Your task to perform on an android device: open chrome privacy settings Image 0: 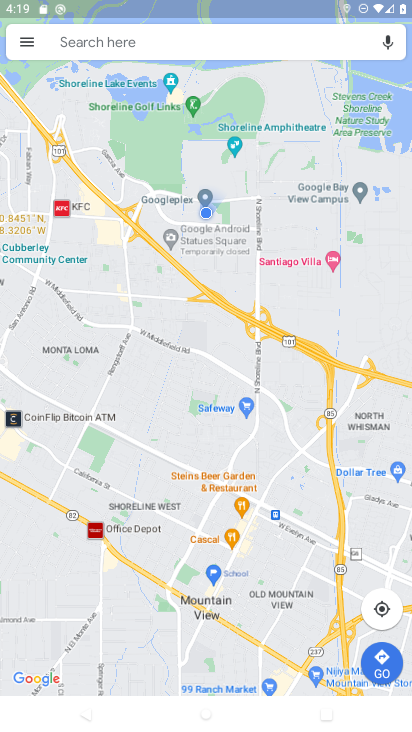
Step 0: click (17, 33)
Your task to perform on an android device: open chrome privacy settings Image 1: 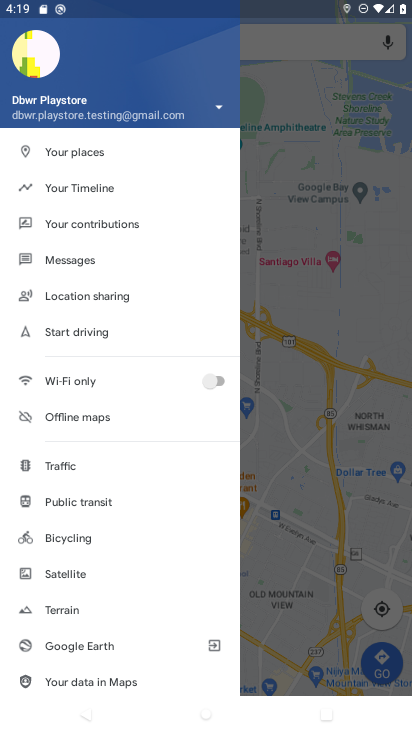
Step 1: press home button
Your task to perform on an android device: open chrome privacy settings Image 2: 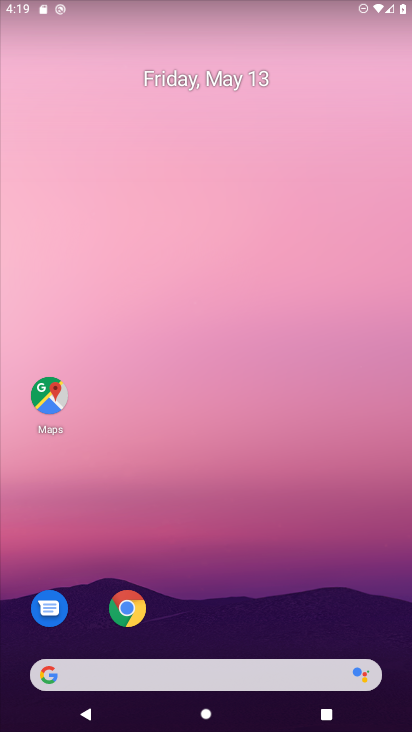
Step 2: drag from (294, 637) to (243, 3)
Your task to perform on an android device: open chrome privacy settings Image 3: 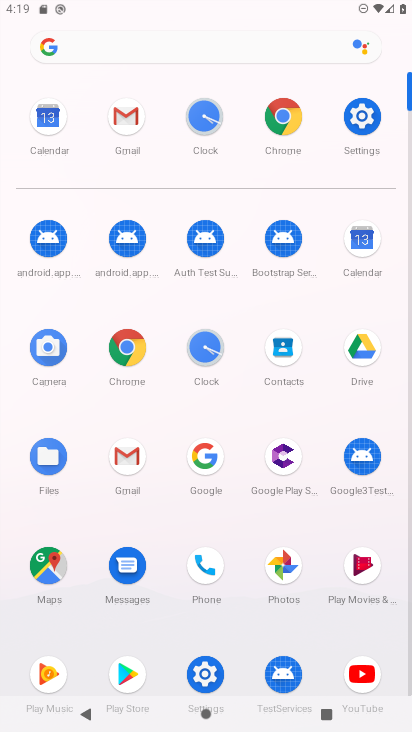
Step 3: click (361, 118)
Your task to perform on an android device: open chrome privacy settings Image 4: 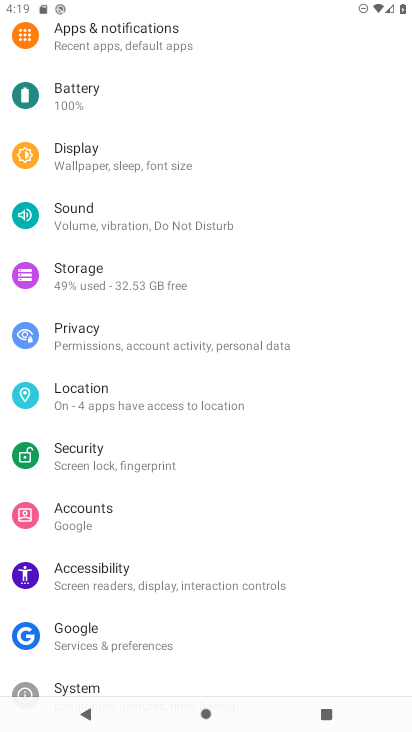
Step 4: press home button
Your task to perform on an android device: open chrome privacy settings Image 5: 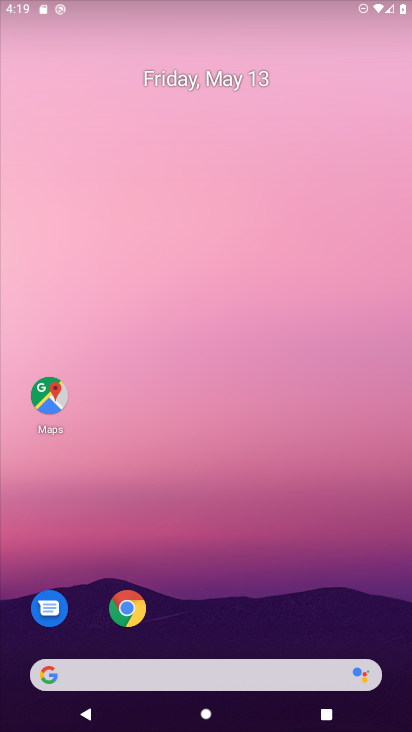
Step 5: drag from (269, 671) to (252, 168)
Your task to perform on an android device: open chrome privacy settings Image 6: 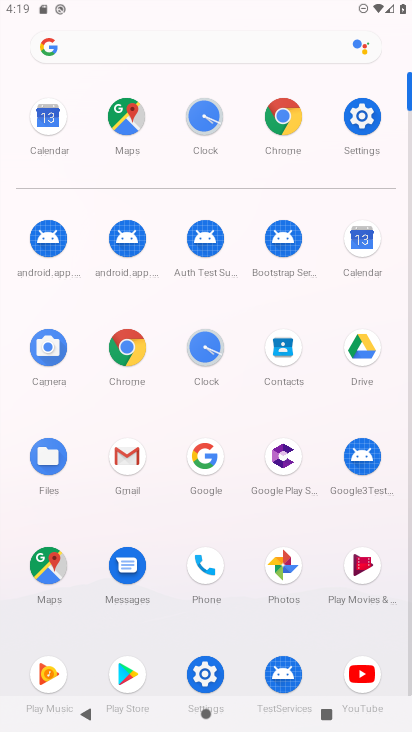
Step 6: click (135, 353)
Your task to perform on an android device: open chrome privacy settings Image 7: 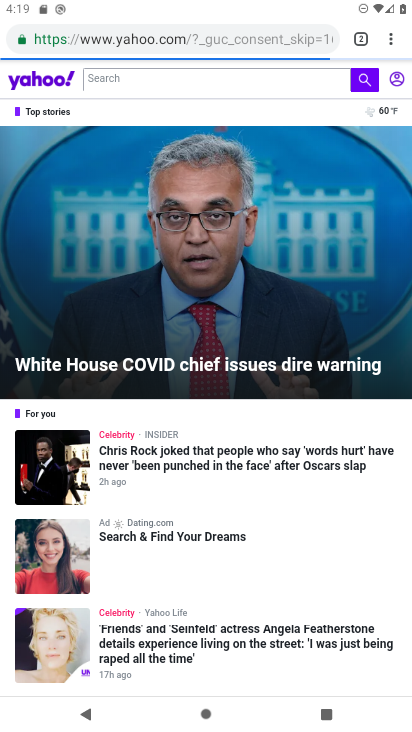
Step 7: click (384, 39)
Your task to perform on an android device: open chrome privacy settings Image 8: 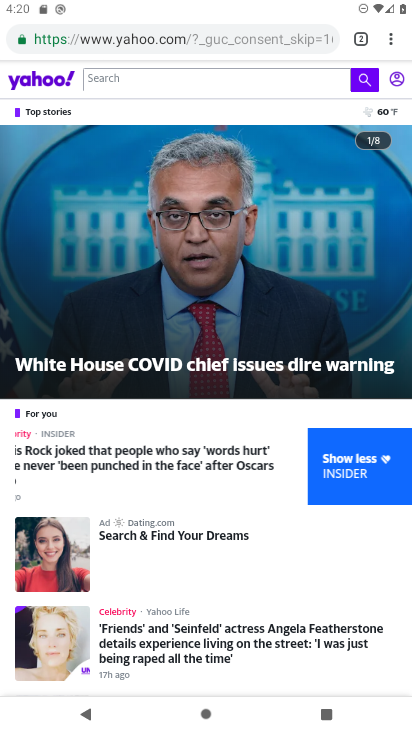
Step 8: click (394, 38)
Your task to perform on an android device: open chrome privacy settings Image 9: 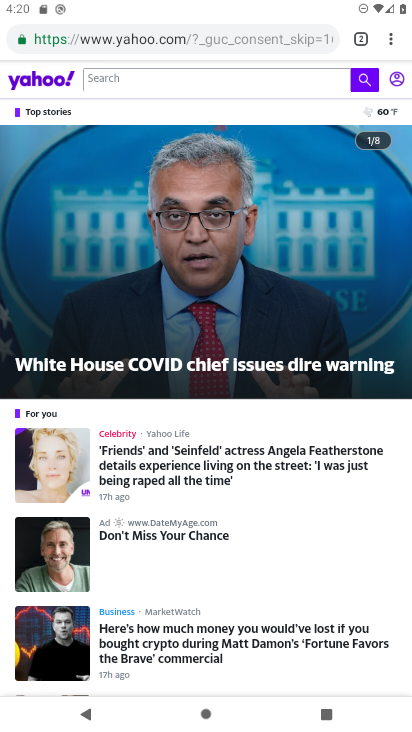
Step 9: drag from (396, 31) to (258, 471)
Your task to perform on an android device: open chrome privacy settings Image 10: 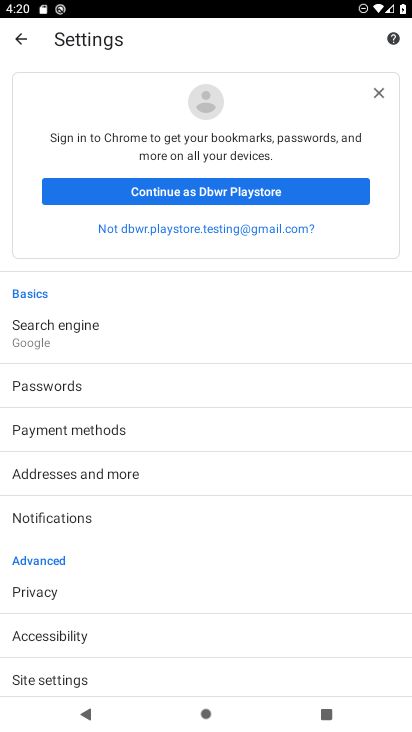
Step 10: click (97, 599)
Your task to perform on an android device: open chrome privacy settings Image 11: 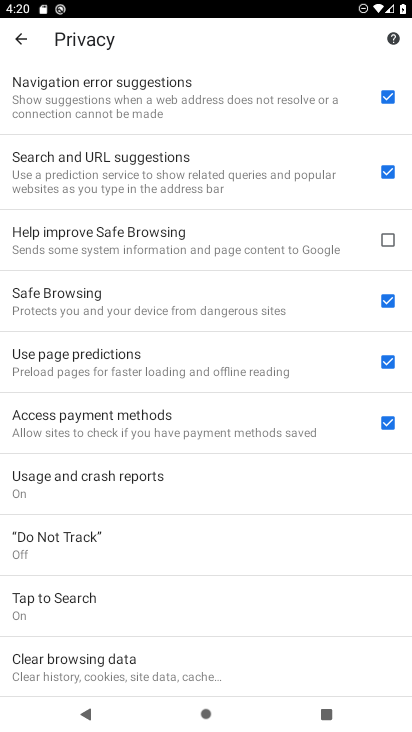
Step 11: task complete